Your task to perform on an android device: Open wifi settings Image 0: 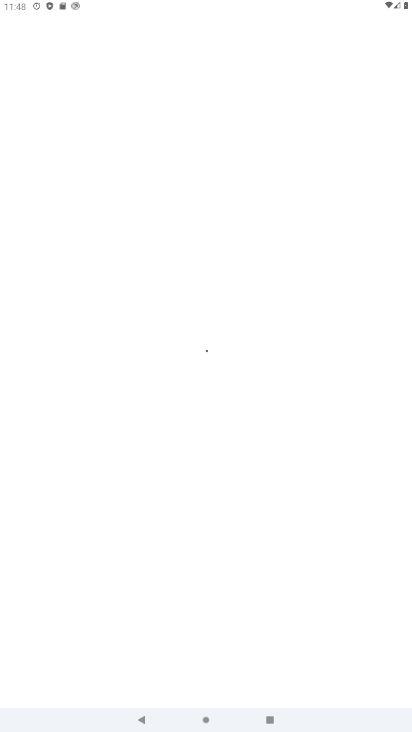
Step 0: press home button
Your task to perform on an android device: Open wifi settings Image 1: 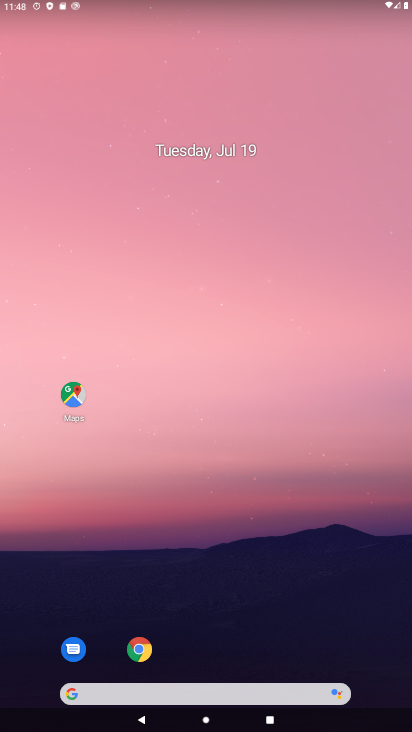
Step 1: drag from (229, 511) to (229, 78)
Your task to perform on an android device: Open wifi settings Image 2: 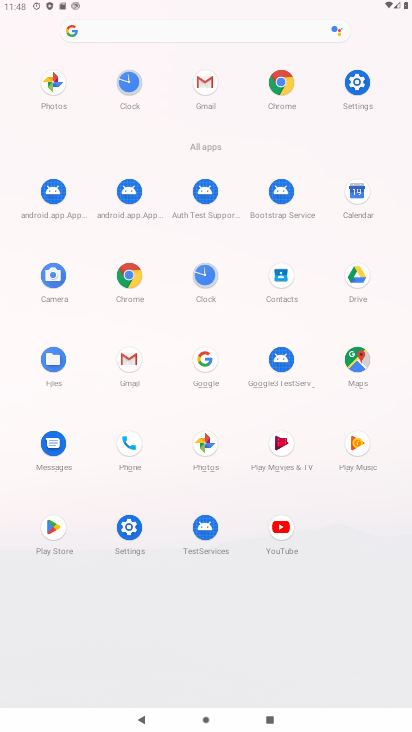
Step 2: click (358, 81)
Your task to perform on an android device: Open wifi settings Image 3: 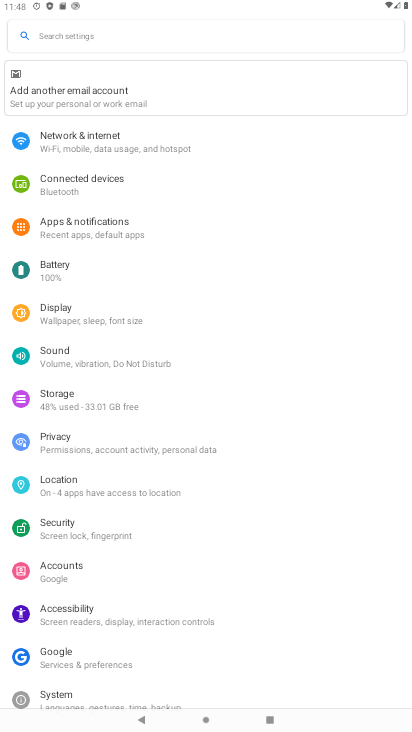
Step 3: click (78, 139)
Your task to perform on an android device: Open wifi settings Image 4: 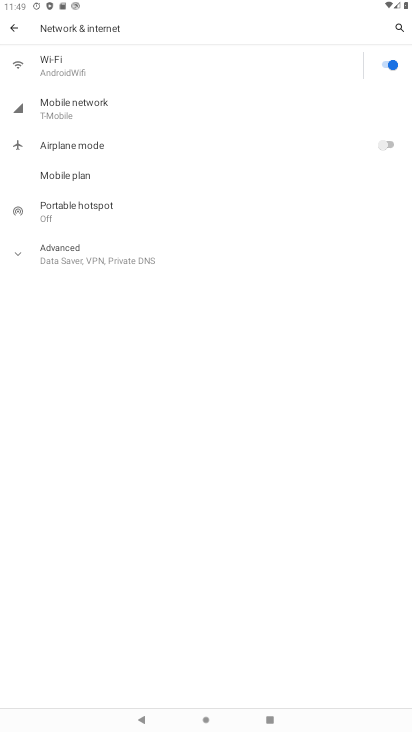
Step 4: click (55, 64)
Your task to perform on an android device: Open wifi settings Image 5: 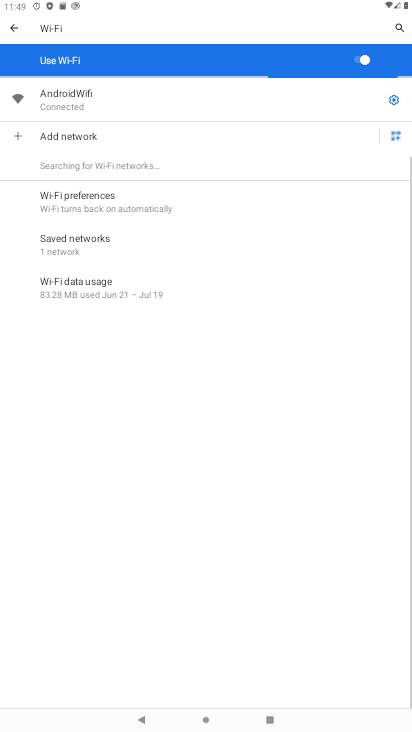
Step 5: task complete